Your task to perform on an android device: open the mobile data screen to see how much data has been used Image 0: 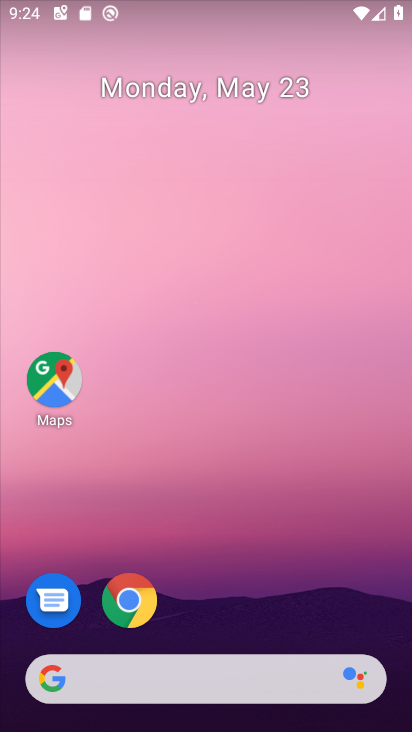
Step 0: drag from (168, 730) to (133, 109)
Your task to perform on an android device: open the mobile data screen to see how much data has been used Image 1: 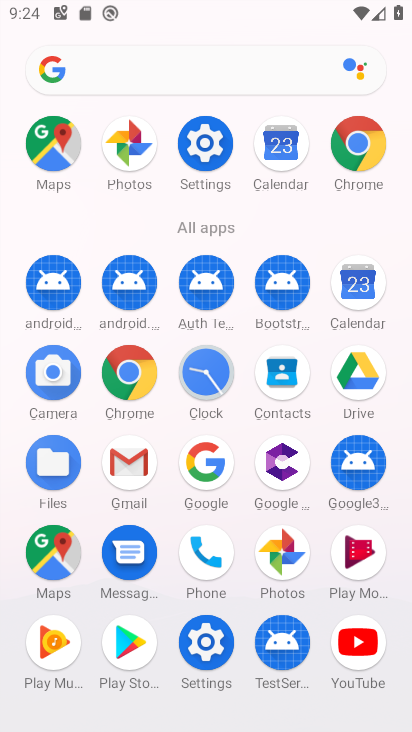
Step 1: click (201, 142)
Your task to perform on an android device: open the mobile data screen to see how much data has been used Image 2: 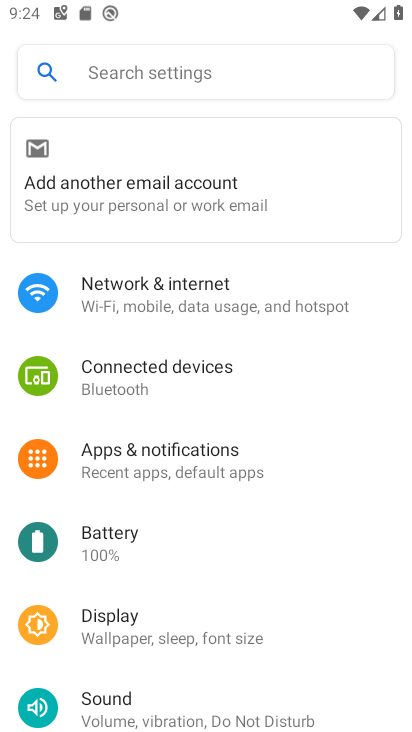
Step 2: click (163, 297)
Your task to perform on an android device: open the mobile data screen to see how much data has been used Image 3: 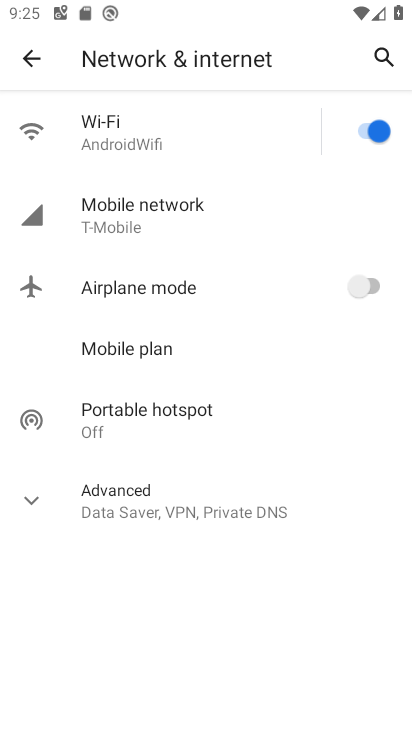
Step 3: click (124, 212)
Your task to perform on an android device: open the mobile data screen to see how much data has been used Image 4: 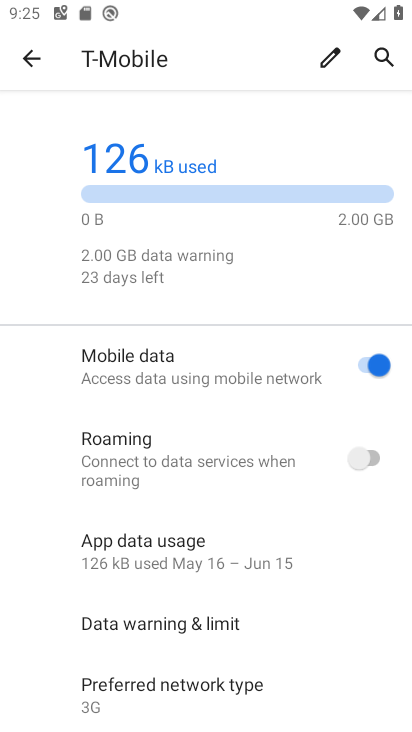
Step 4: click (139, 559)
Your task to perform on an android device: open the mobile data screen to see how much data has been used Image 5: 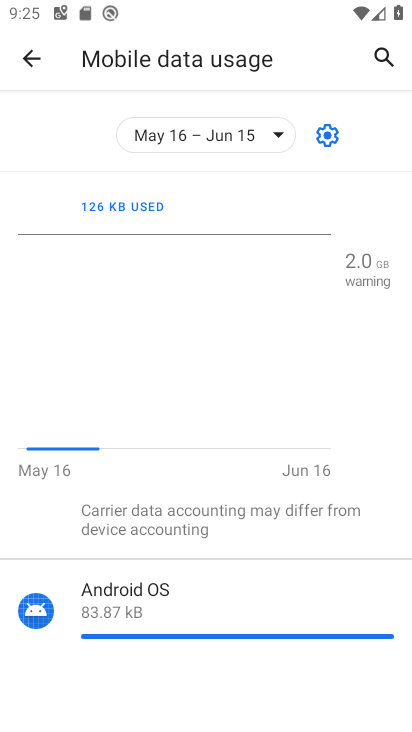
Step 5: task complete